Your task to perform on an android device: check google app version Image 0: 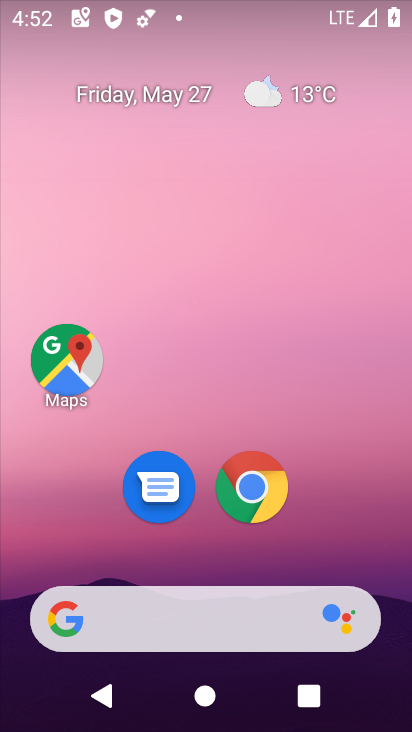
Step 0: drag from (319, 545) to (351, 147)
Your task to perform on an android device: check google app version Image 1: 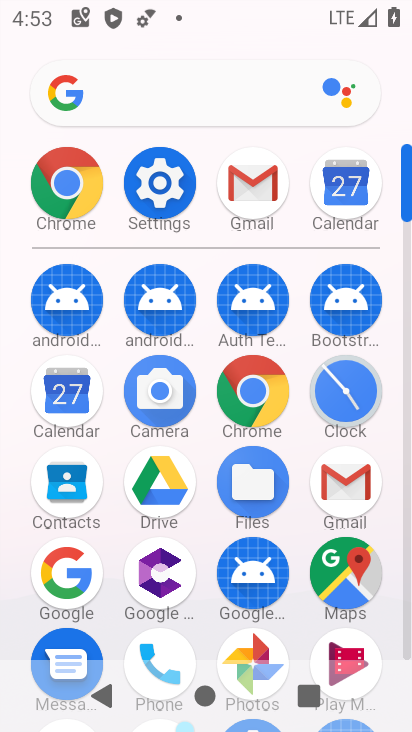
Step 1: click (56, 576)
Your task to perform on an android device: check google app version Image 2: 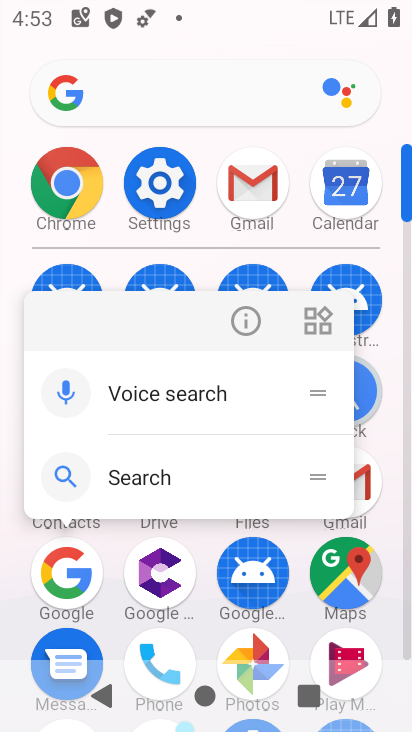
Step 2: click (246, 323)
Your task to perform on an android device: check google app version Image 3: 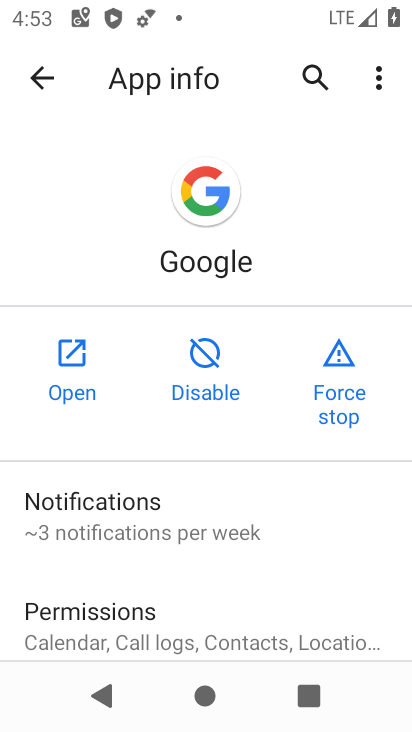
Step 3: drag from (253, 716) to (258, 120)
Your task to perform on an android device: check google app version Image 4: 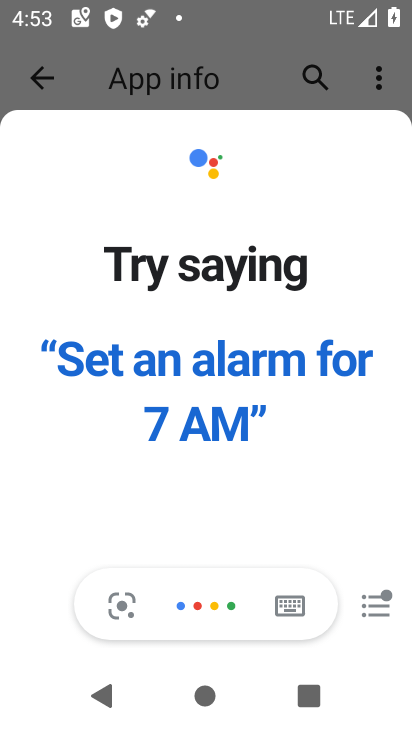
Step 4: drag from (241, 559) to (230, 165)
Your task to perform on an android device: check google app version Image 5: 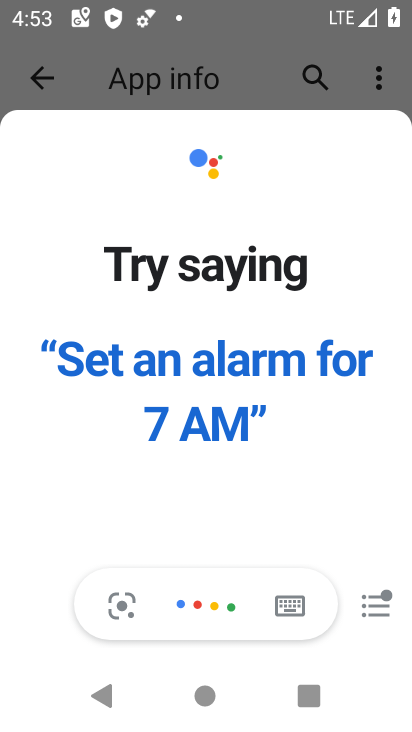
Step 5: click (287, 52)
Your task to perform on an android device: check google app version Image 6: 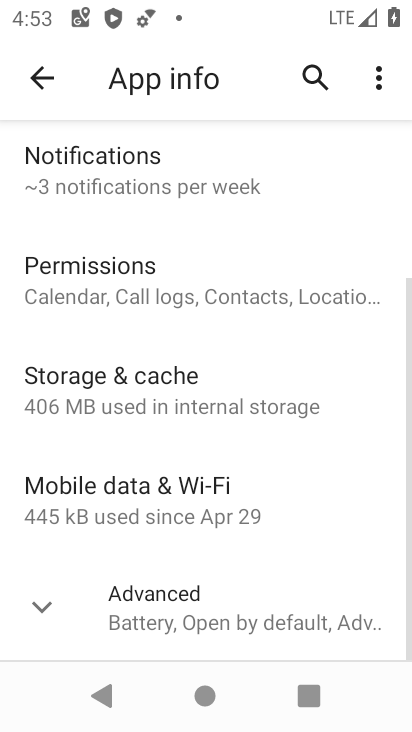
Step 6: click (147, 606)
Your task to perform on an android device: check google app version Image 7: 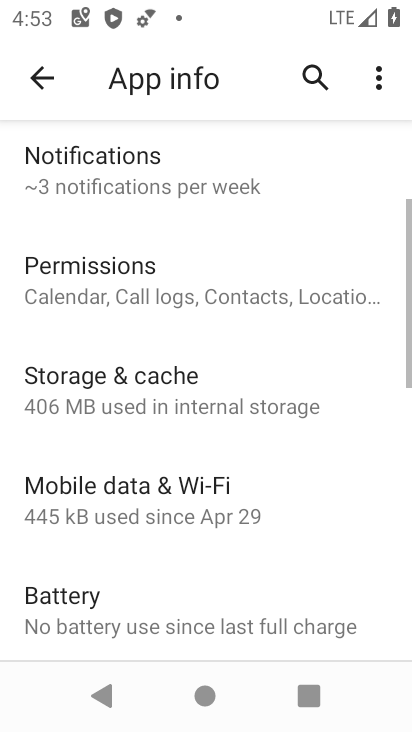
Step 7: task complete